Your task to perform on an android device: manage bookmarks in the chrome app Image 0: 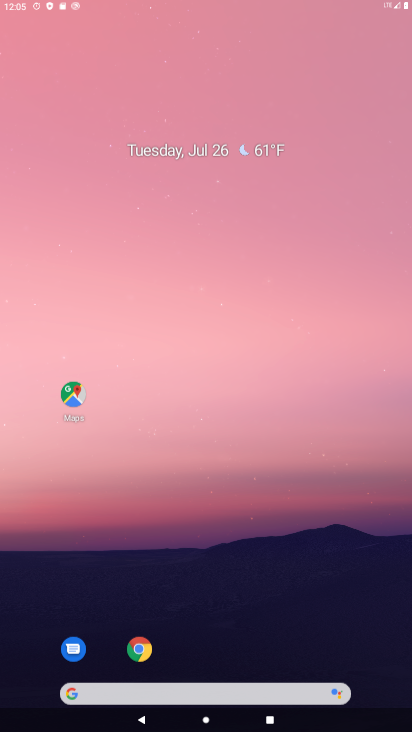
Step 0: click (261, 92)
Your task to perform on an android device: manage bookmarks in the chrome app Image 1: 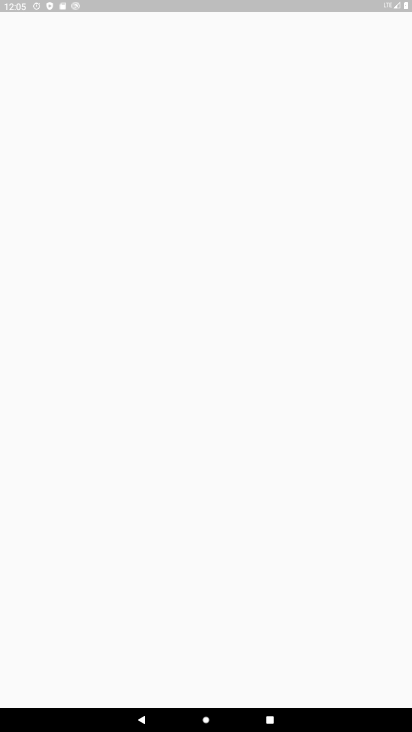
Step 1: press home button
Your task to perform on an android device: manage bookmarks in the chrome app Image 2: 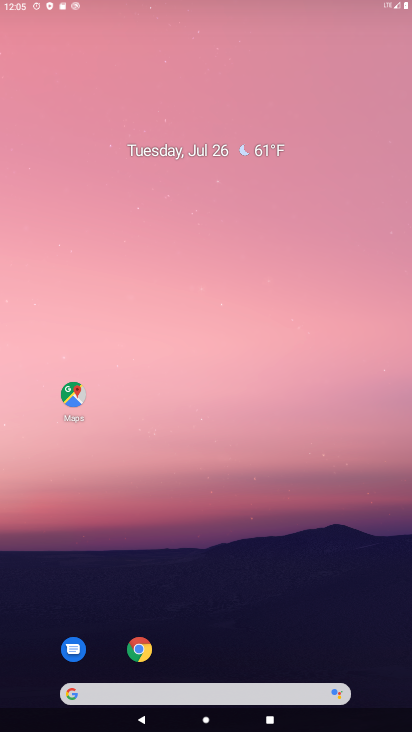
Step 2: drag from (218, 654) to (202, 51)
Your task to perform on an android device: manage bookmarks in the chrome app Image 3: 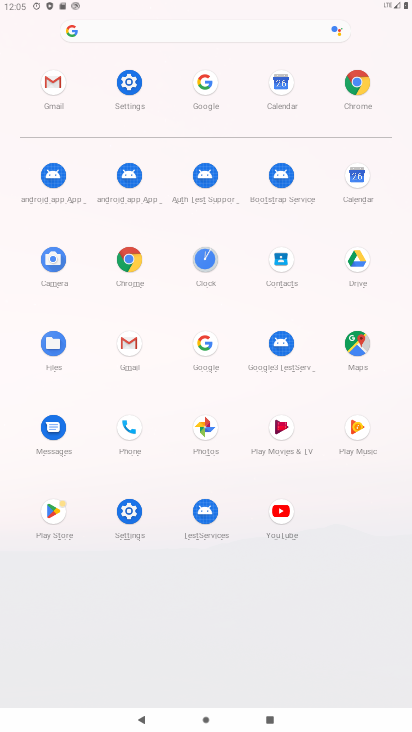
Step 3: click (121, 261)
Your task to perform on an android device: manage bookmarks in the chrome app Image 4: 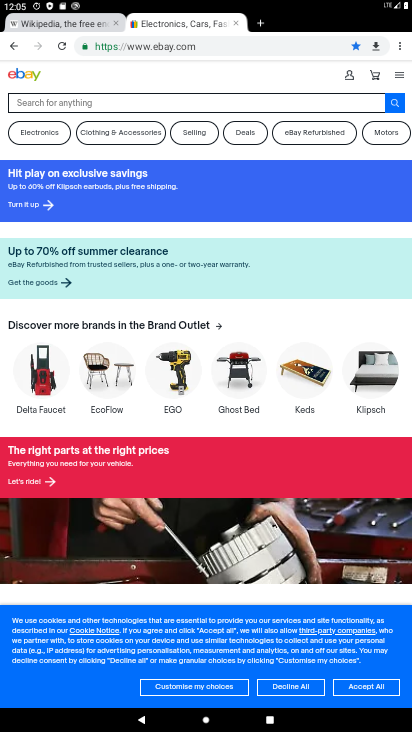
Step 4: drag from (401, 47) to (330, 85)
Your task to perform on an android device: manage bookmarks in the chrome app Image 5: 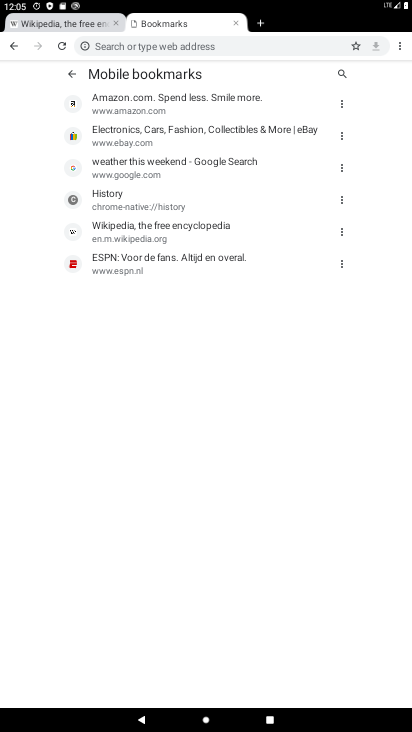
Step 5: click (343, 101)
Your task to perform on an android device: manage bookmarks in the chrome app Image 6: 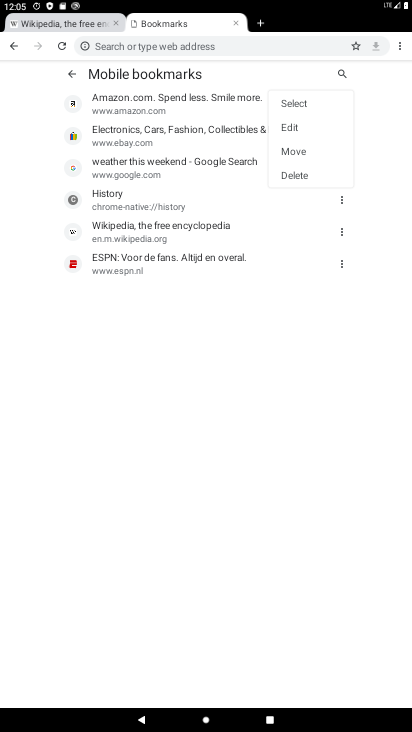
Step 6: click (295, 122)
Your task to perform on an android device: manage bookmarks in the chrome app Image 7: 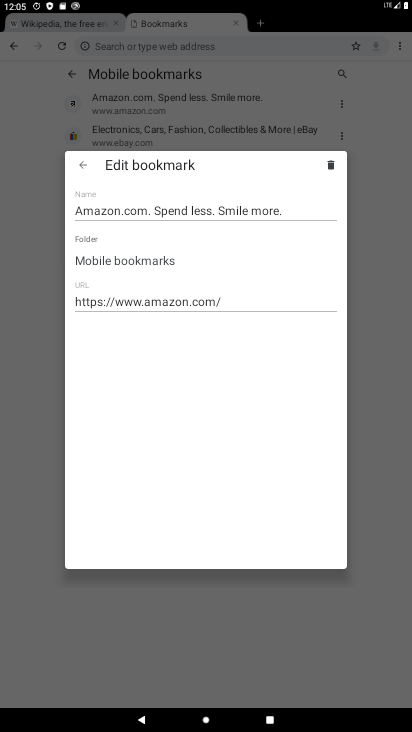
Step 7: task complete